Your task to perform on an android device: toggle notifications settings in the gmail app Image 0: 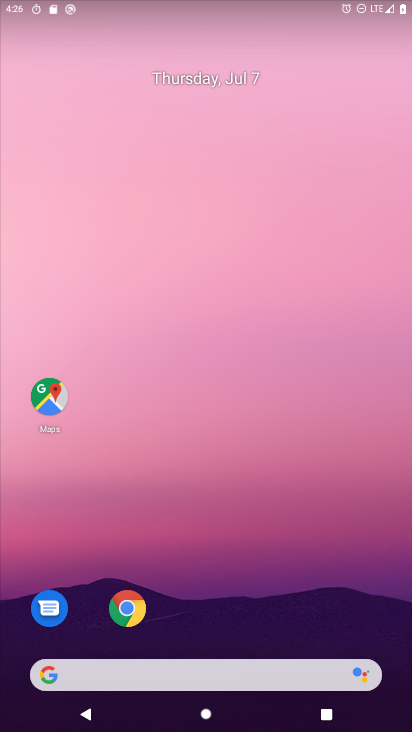
Step 0: drag from (230, 675) to (230, 124)
Your task to perform on an android device: toggle notifications settings in the gmail app Image 1: 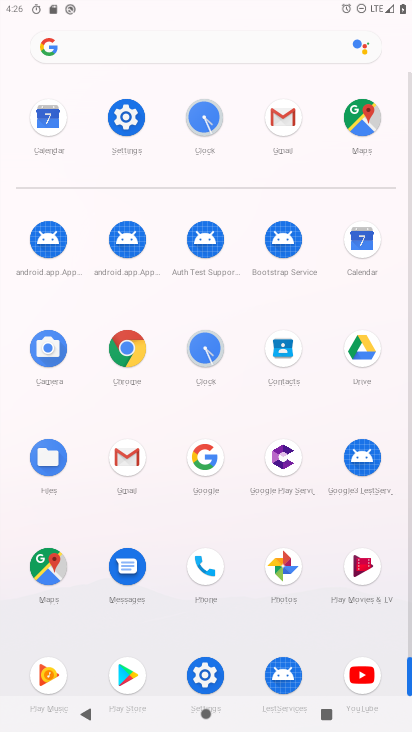
Step 1: click (133, 454)
Your task to perform on an android device: toggle notifications settings in the gmail app Image 2: 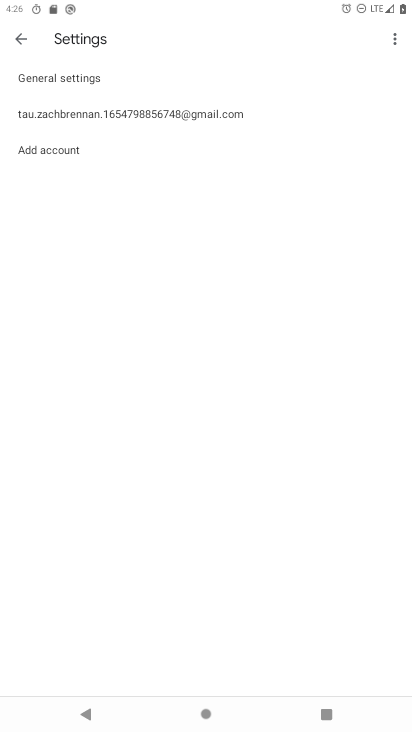
Step 2: click (93, 109)
Your task to perform on an android device: toggle notifications settings in the gmail app Image 3: 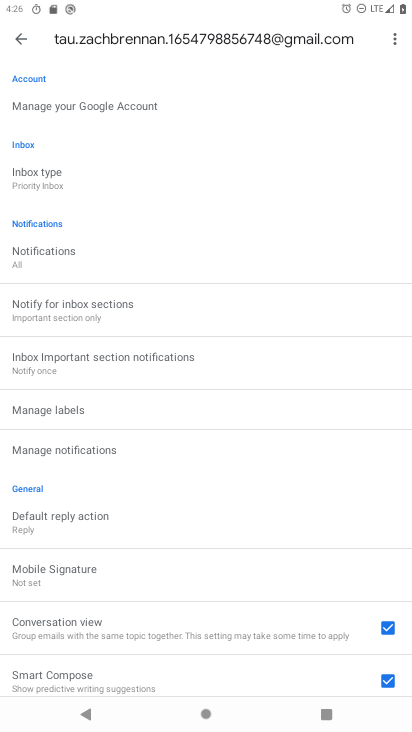
Step 3: click (34, 253)
Your task to perform on an android device: toggle notifications settings in the gmail app Image 4: 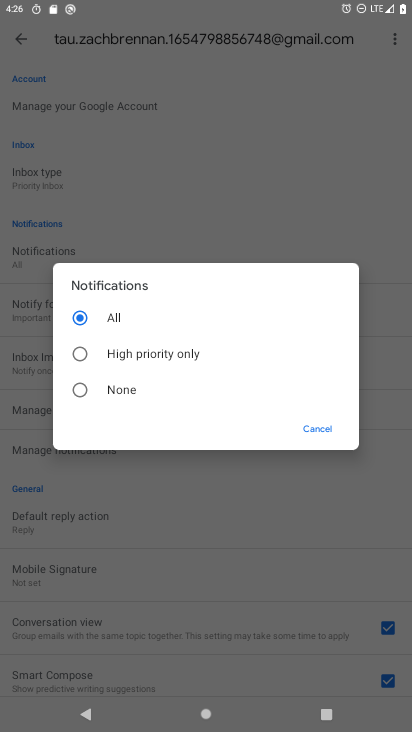
Step 4: click (81, 387)
Your task to perform on an android device: toggle notifications settings in the gmail app Image 5: 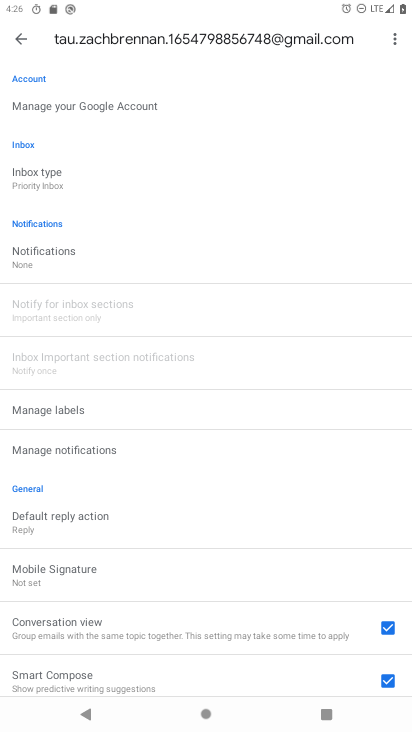
Step 5: task complete